Your task to perform on an android device: toggle wifi Image 0: 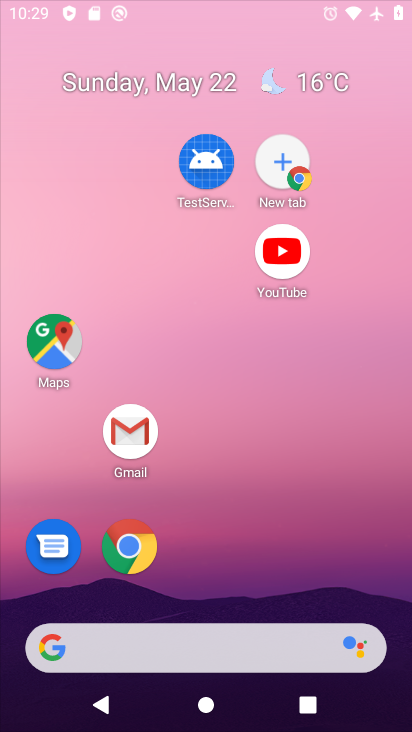
Step 0: click (250, 218)
Your task to perform on an android device: toggle wifi Image 1: 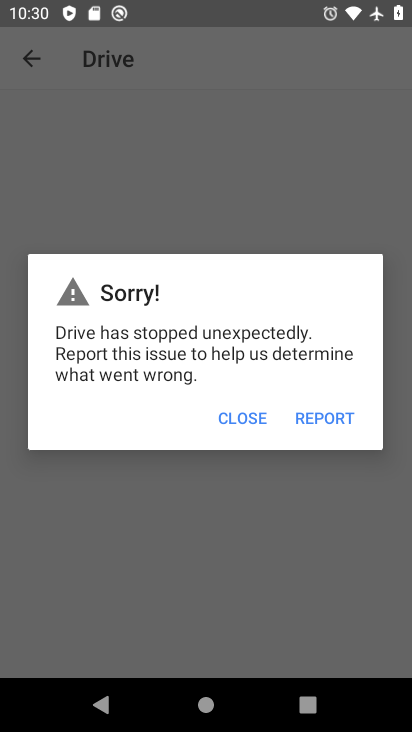
Step 1: click (226, 414)
Your task to perform on an android device: toggle wifi Image 2: 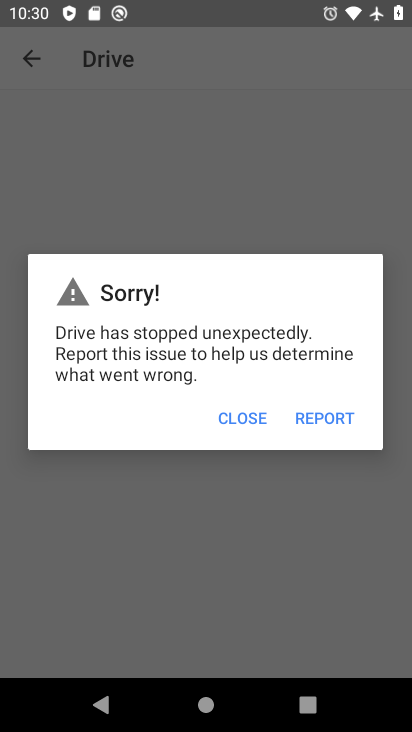
Step 2: click (228, 413)
Your task to perform on an android device: toggle wifi Image 3: 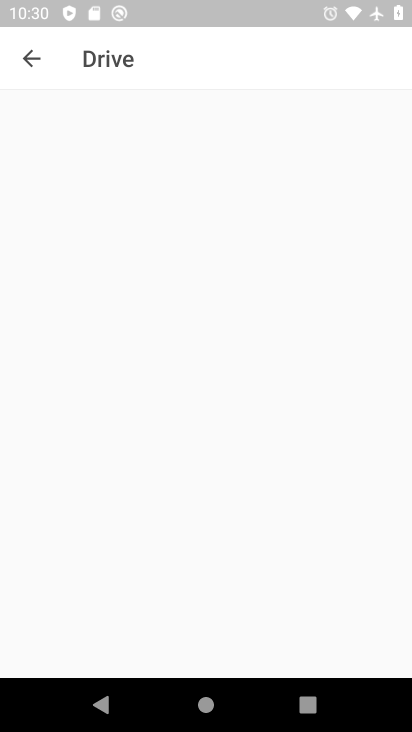
Step 3: click (230, 408)
Your task to perform on an android device: toggle wifi Image 4: 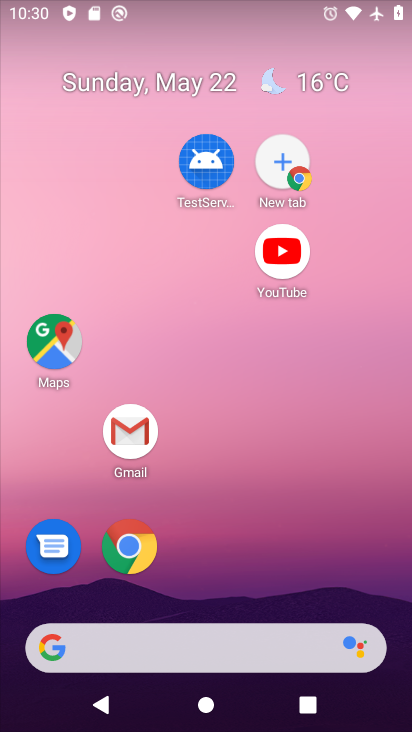
Step 4: drag from (231, 619) to (168, 107)
Your task to perform on an android device: toggle wifi Image 5: 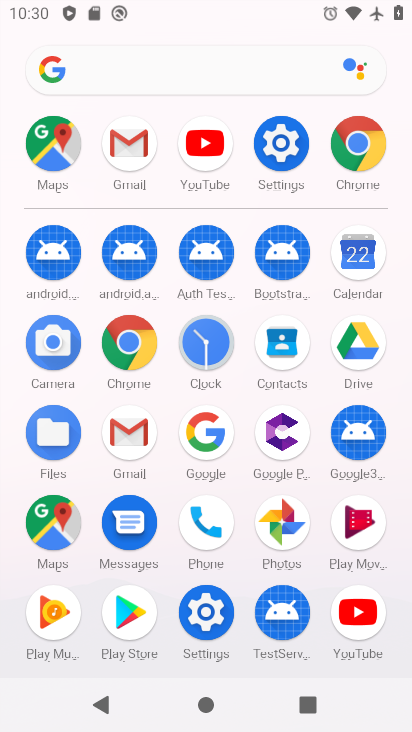
Step 5: click (277, 141)
Your task to perform on an android device: toggle wifi Image 6: 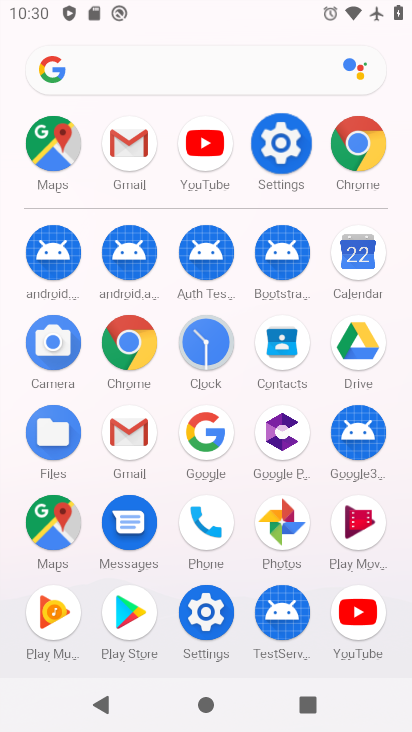
Step 6: click (285, 136)
Your task to perform on an android device: toggle wifi Image 7: 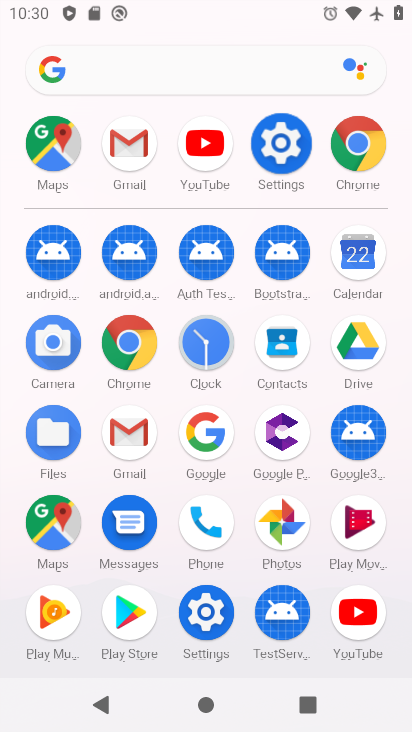
Step 7: click (288, 135)
Your task to perform on an android device: toggle wifi Image 8: 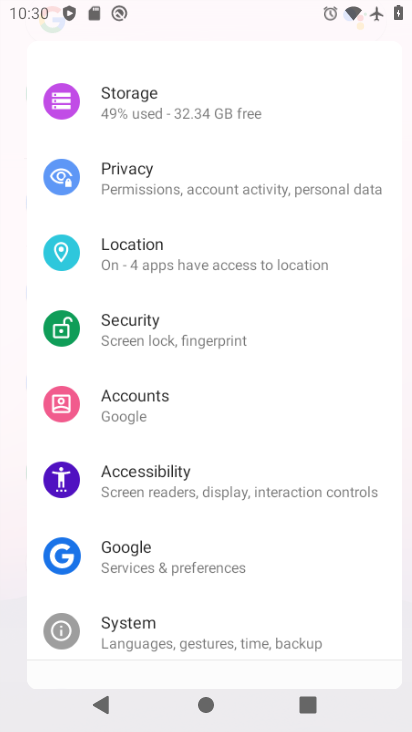
Step 8: click (289, 134)
Your task to perform on an android device: toggle wifi Image 9: 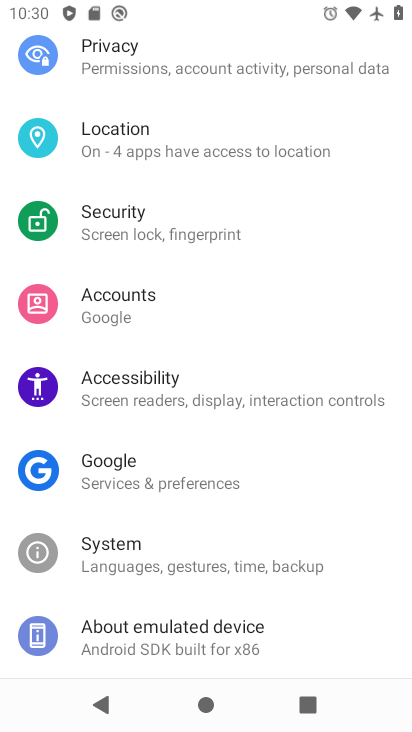
Step 9: click (289, 133)
Your task to perform on an android device: toggle wifi Image 10: 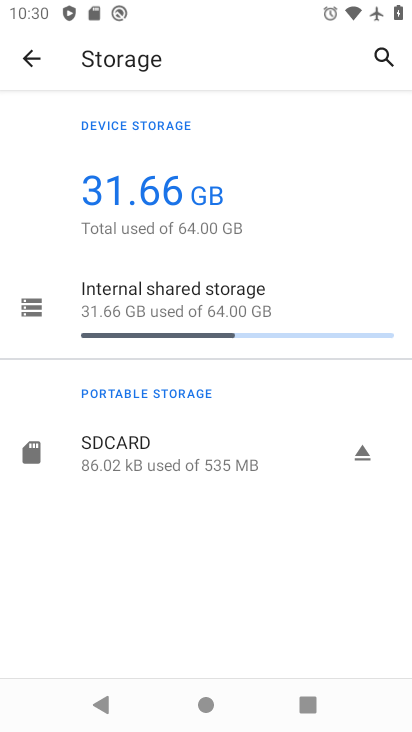
Step 10: click (33, 59)
Your task to perform on an android device: toggle wifi Image 11: 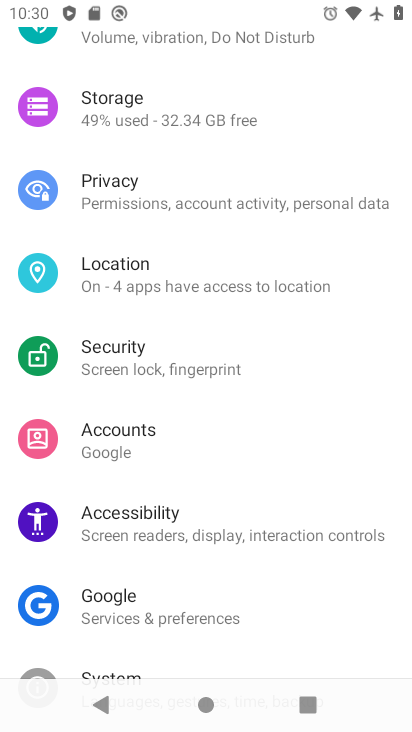
Step 11: drag from (155, 167) to (115, 669)
Your task to perform on an android device: toggle wifi Image 12: 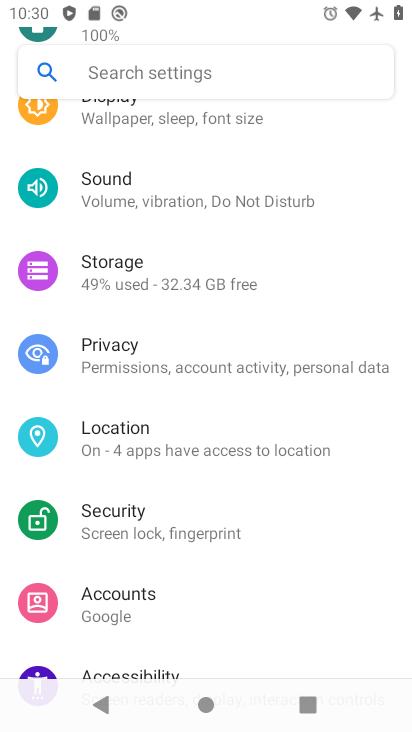
Step 12: drag from (112, 218) to (198, 673)
Your task to perform on an android device: toggle wifi Image 13: 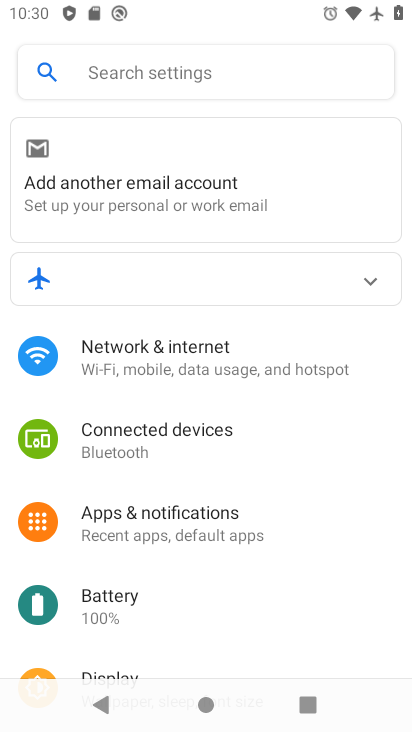
Step 13: click (179, 351)
Your task to perform on an android device: toggle wifi Image 14: 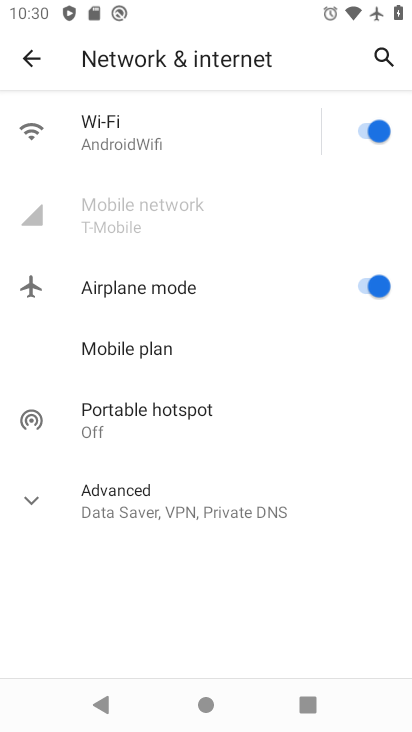
Step 14: click (380, 126)
Your task to perform on an android device: toggle wifi Image 15: 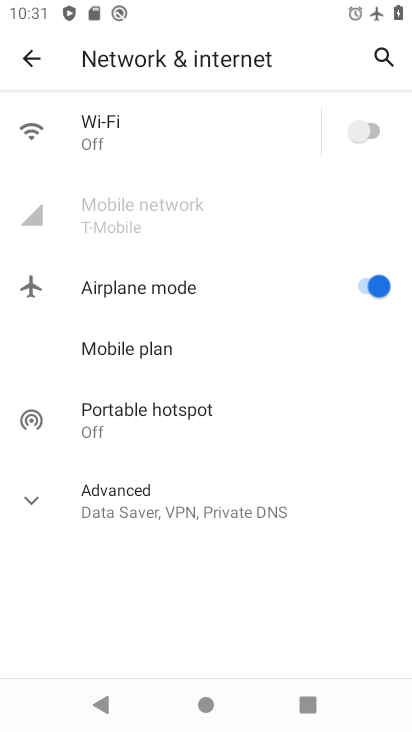
Step 15: task complete